Your task to perform on an android device: open wifi settings Image 0: 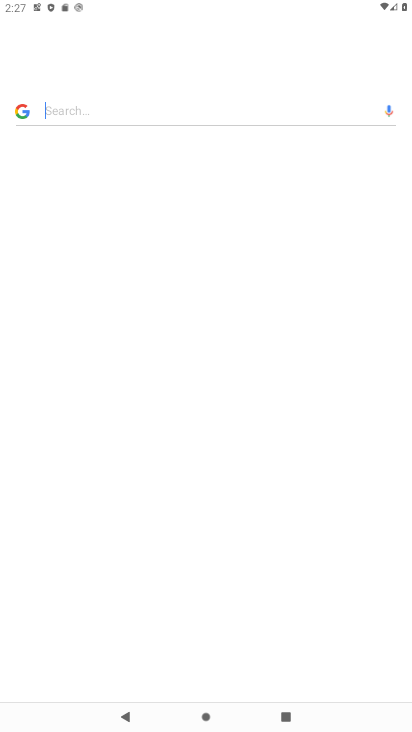
Step 0: drag from (134, 6) to (214, 504)
Your task to perform on an android device: open wifi settings Image 1: 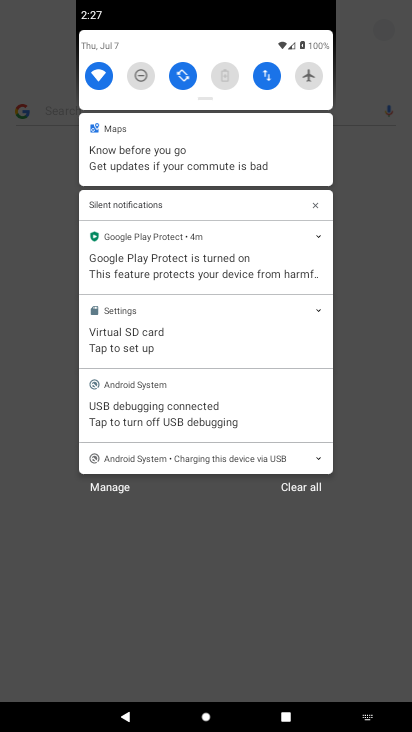
Step 1: click (108, 69)
Your task to perform on an android device: open wifi settings Image 2: 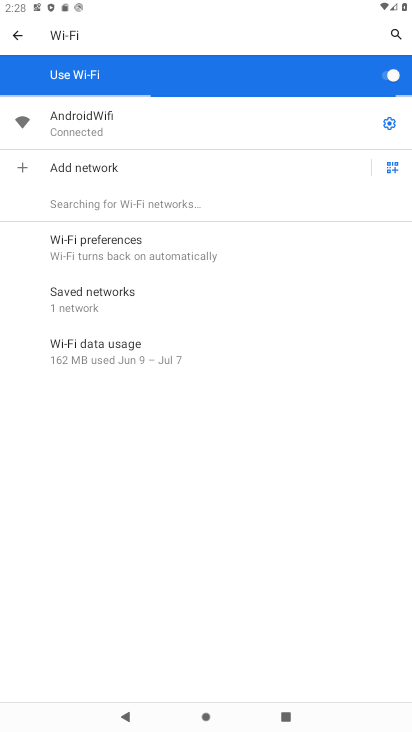
Step 2: task complete